Your task to perform on an android device: Go to location settings Image 0: 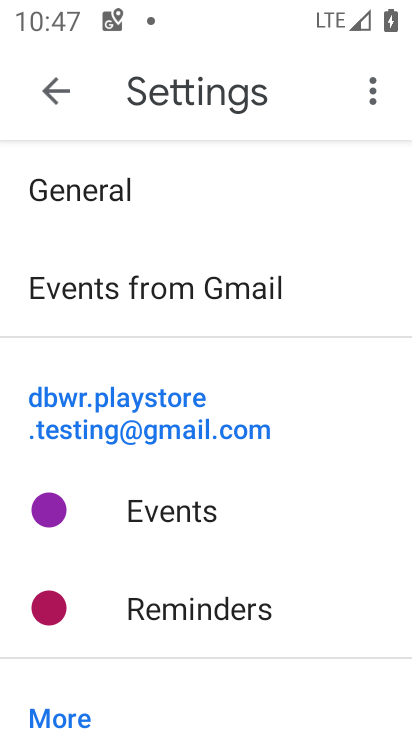
Step 0: press home button
Your task to perform on an android device: Go to location settings Image 1: 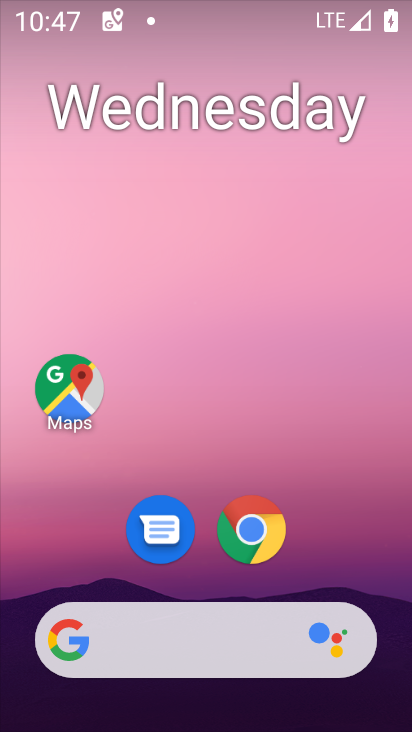
Step 1: drag from (390, 604) to (353, 84)
Your task to perform on an android device: Go to location settings Image 2: 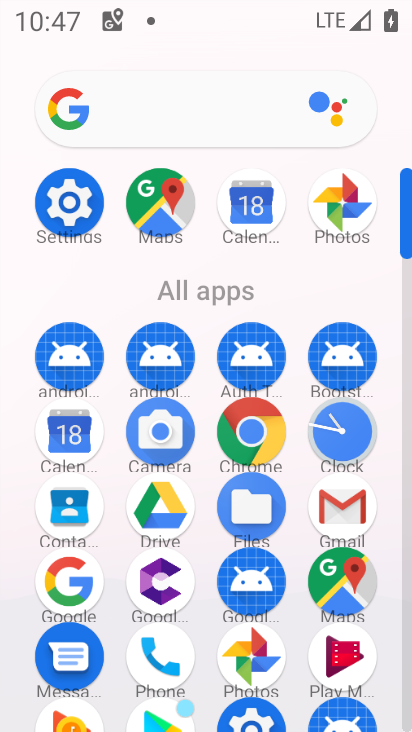
Step 2: click (405, 694)
Your task to perform on an android device: Go to location settings Image 3: 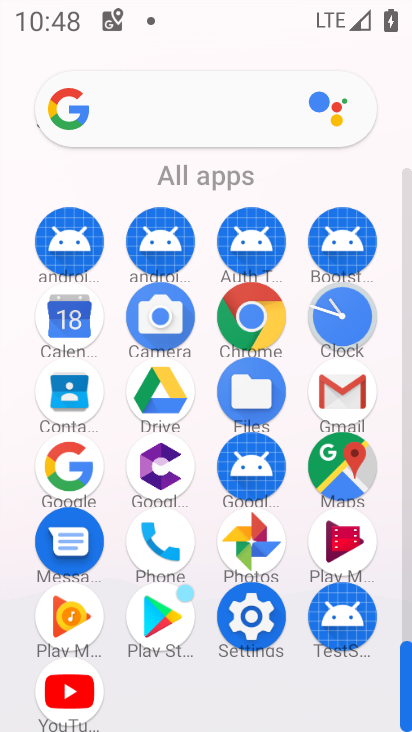
Step 3: click (251, 616)
Your task to perform on an android device: Go to location settings Image 4: 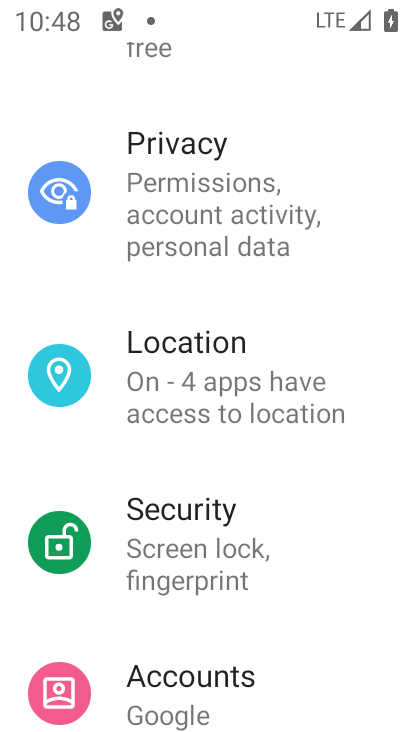
Step 4: click (174, 346)
Your task to perform on an android device: Go to location settings Image 5: 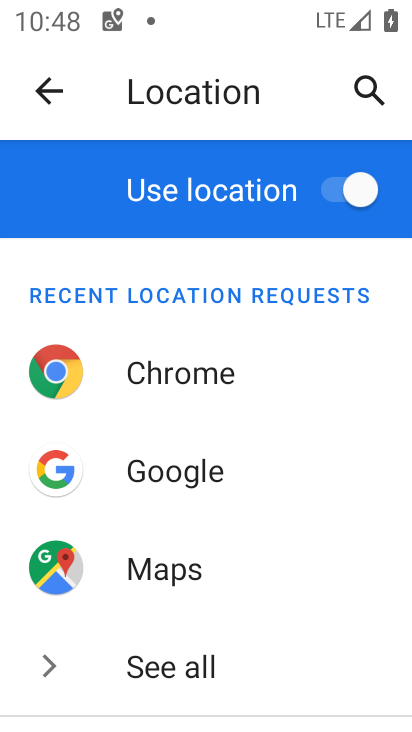
Step 5: drag from (325, 690) to (280, 247)
Your task to perform on an android device: Go to location settings Image 6: 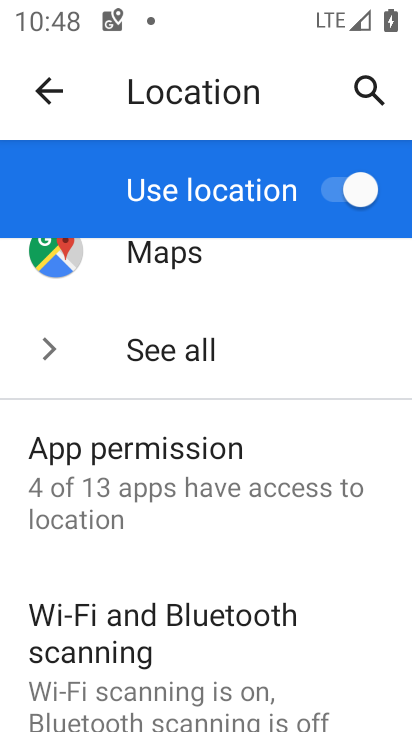
Step 6: drag from (295, 618) to (277, 309)
Your task to perform on an android device: Go to location settings Image 7: 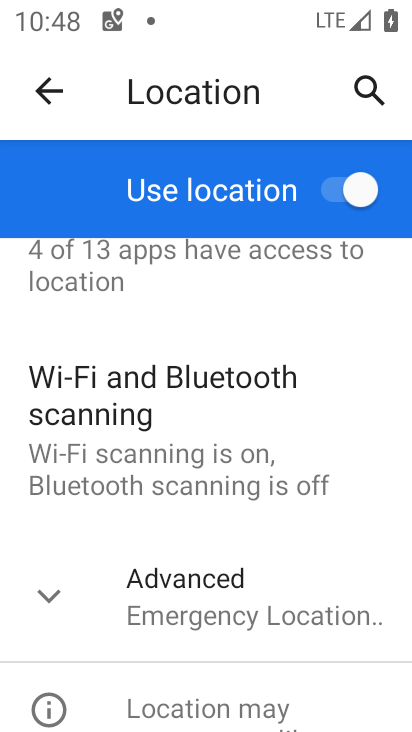
Step 7: click (43, 593)
Your task to perform on an android device: Go to location settings Image 8: 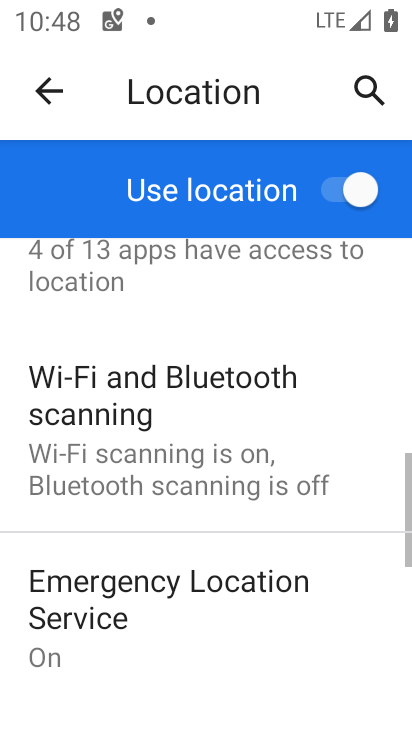
Step 8: task complete